Your task to perform on an android device: visit the assistant section in the google photos Image 0: 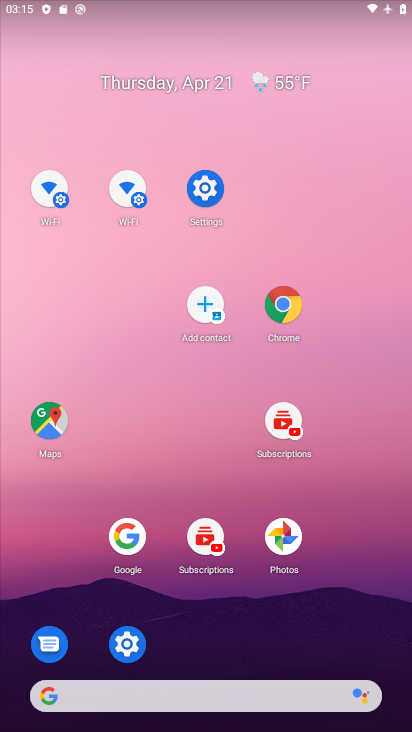
Step 0: drag from (261, 593) to (157, 217)
Your task to perform on an android device: visit the assistant section in the google photos Image 1: 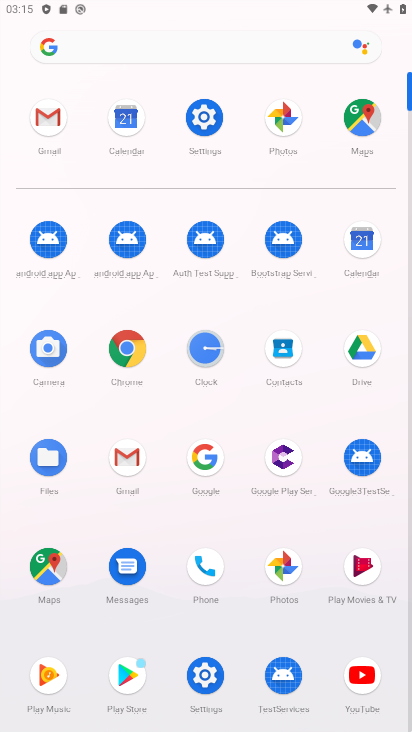
Step 1: click (287, 563)
Your task to perform on an android device: visit the assistant section in the google photos Image 2: 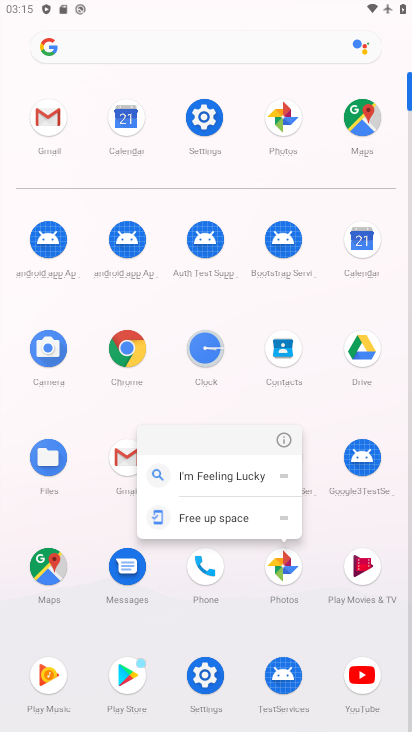
Step 2: click (283, 556)
Your task to perform on an android device: visit the assistant section in the google photos Image 3: 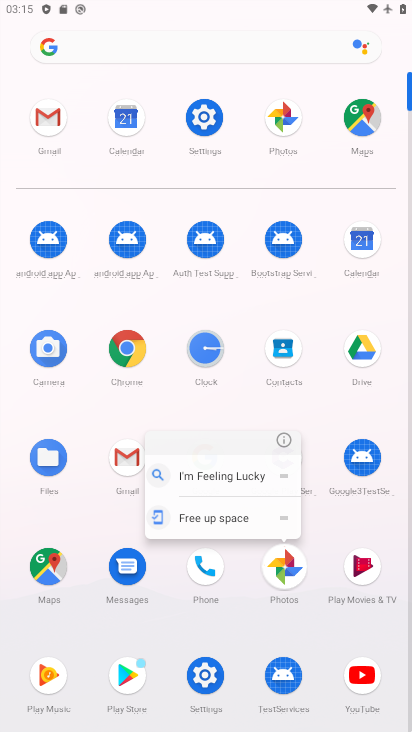
Step 3: click (283, 556)
Your task to perform on an android device: visit the assistant section in the google photos Image 4: 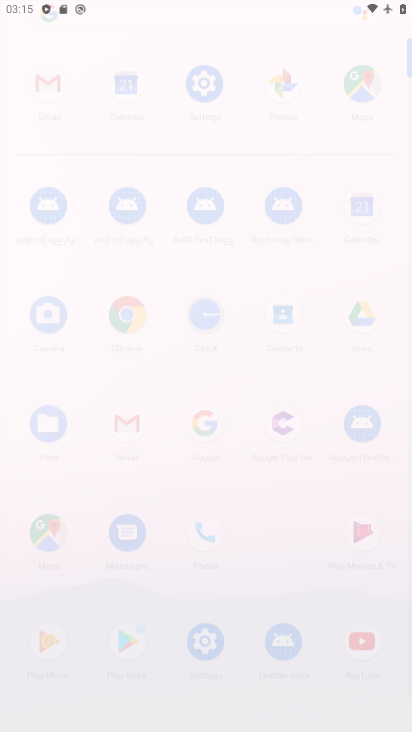
Step 4: click (293, 562)
Your task to perform on an android device: visit the assistant section in the google photos Image 5: 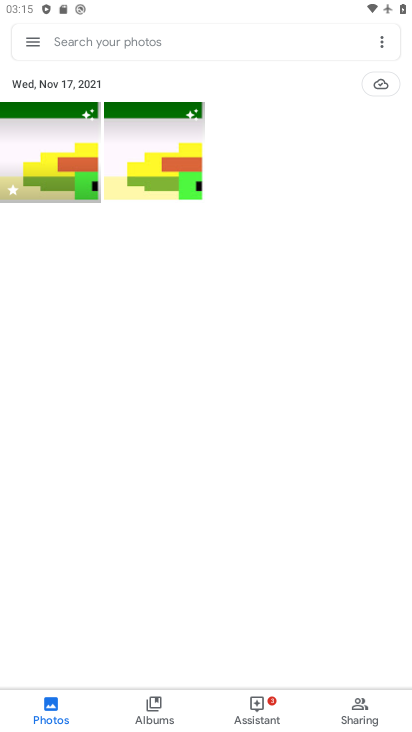
Step 5: click (251, 711)
Your task to perform on an android device: visit the assistant section in the google photos Image 6: 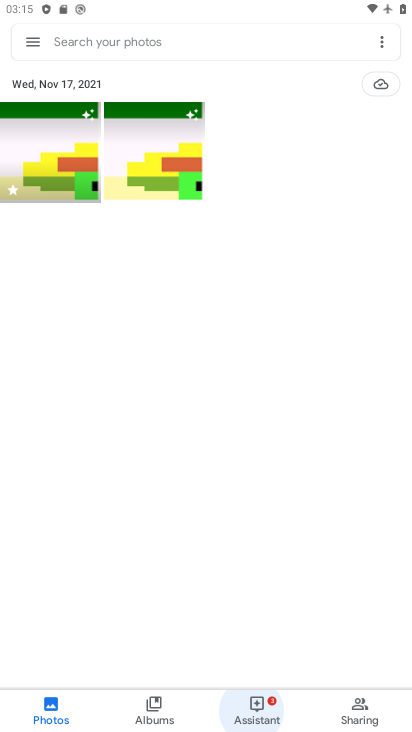
Step 6: click (251, 712)
Your task to perform on an android device: visit the assistant section in the google photos Image 7: 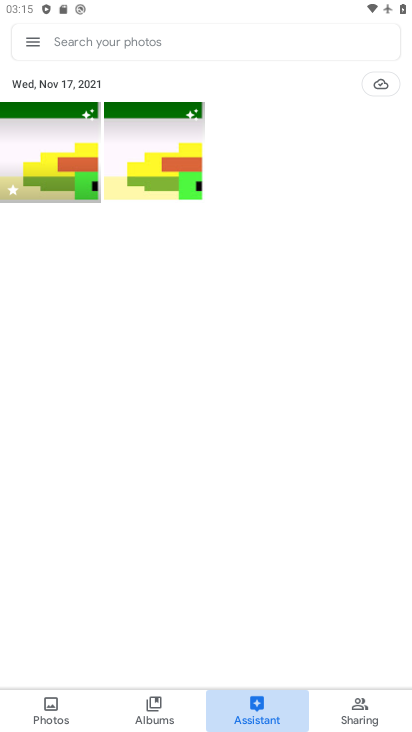
Step 7: click (251, 712)
Your task to perform on an android device: visit the assistant section in the google photos Image 8: 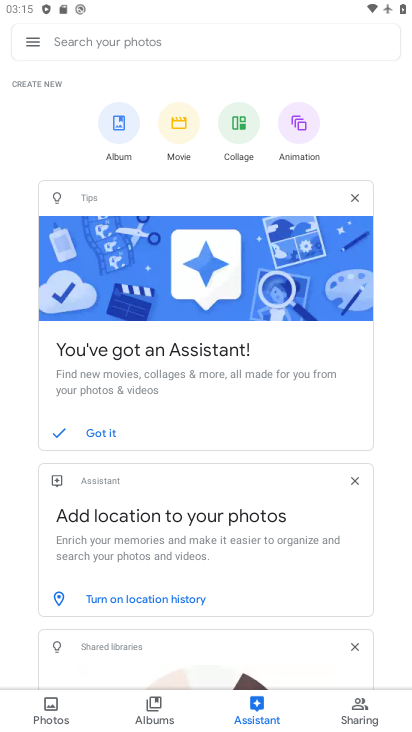
Step 8: task complete